Your task to perform on an android device: What is the news today? Image 0: 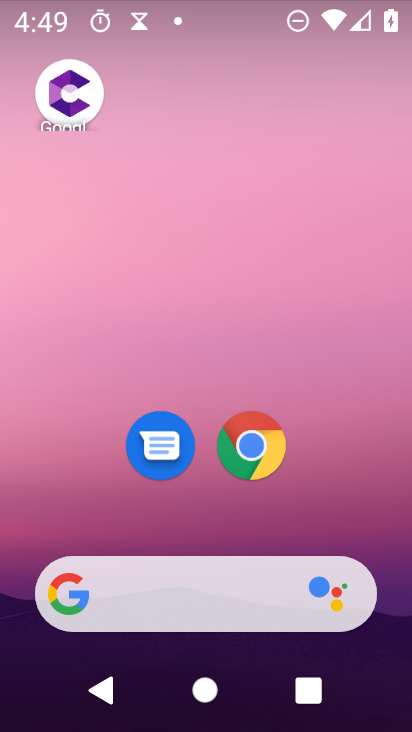
Step 0: drag from (219, 488) to (262, 44)
Your task to perform on an android device: What is the news today? Image 1: 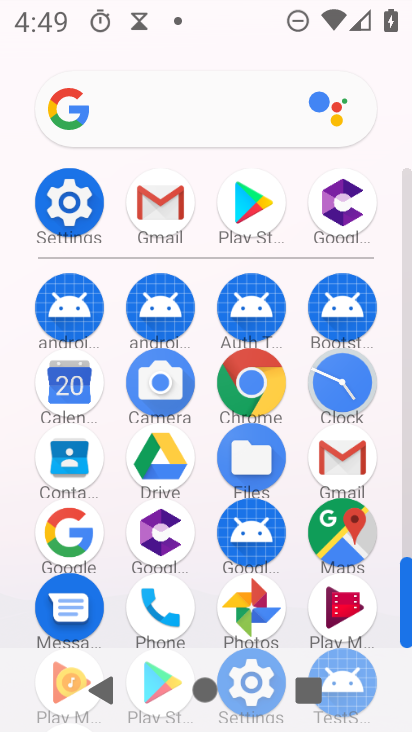
Step 1: click (68, 534)
Your task to perform on an android device: What is the news today? Image 2: 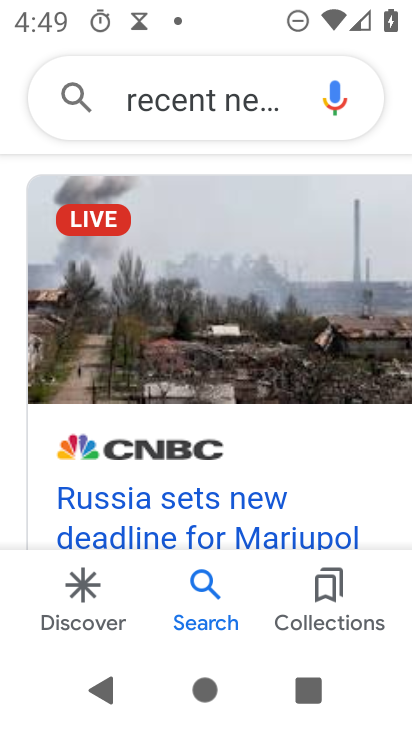
Step 2: click (258, 490)
Your task to perform on an android device: What is the news today? Image 3: 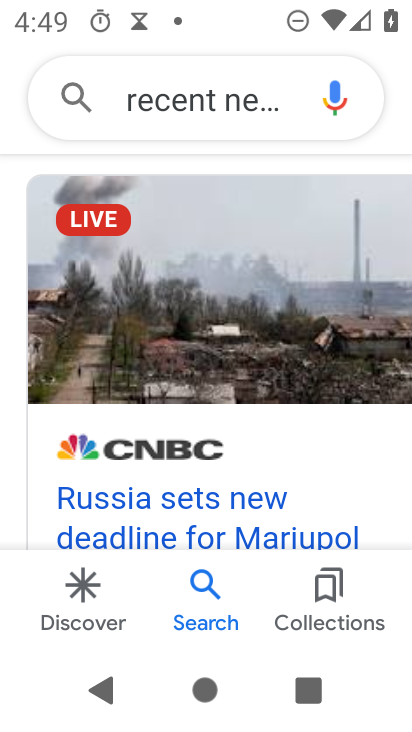
Step 3: click (244, 508)
Your task to perform on an android device: What is the news today? Image 4: 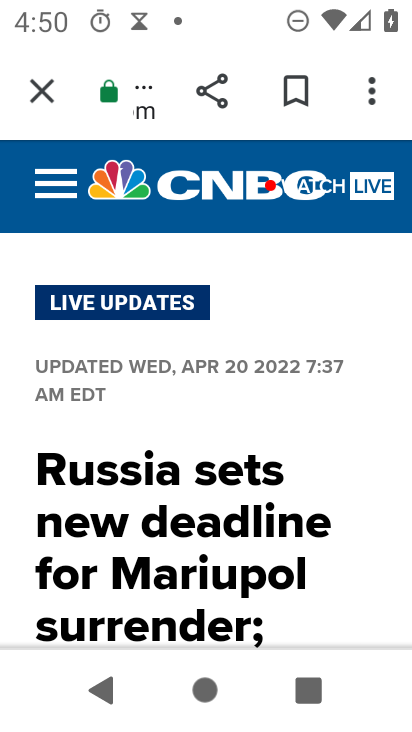
Step 4: task complete